Your task to perform on an android device: Show me recent news Image 0: 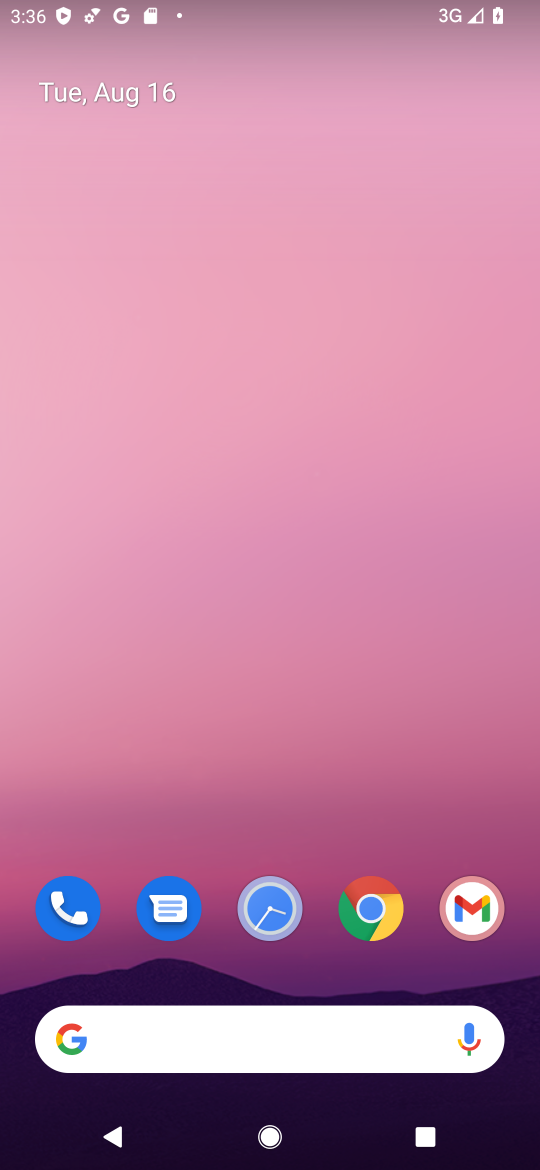
Step 0: drag from (238, 995) to (332, 123)
Your task to perform on an android device: Show me recent news Image 1: 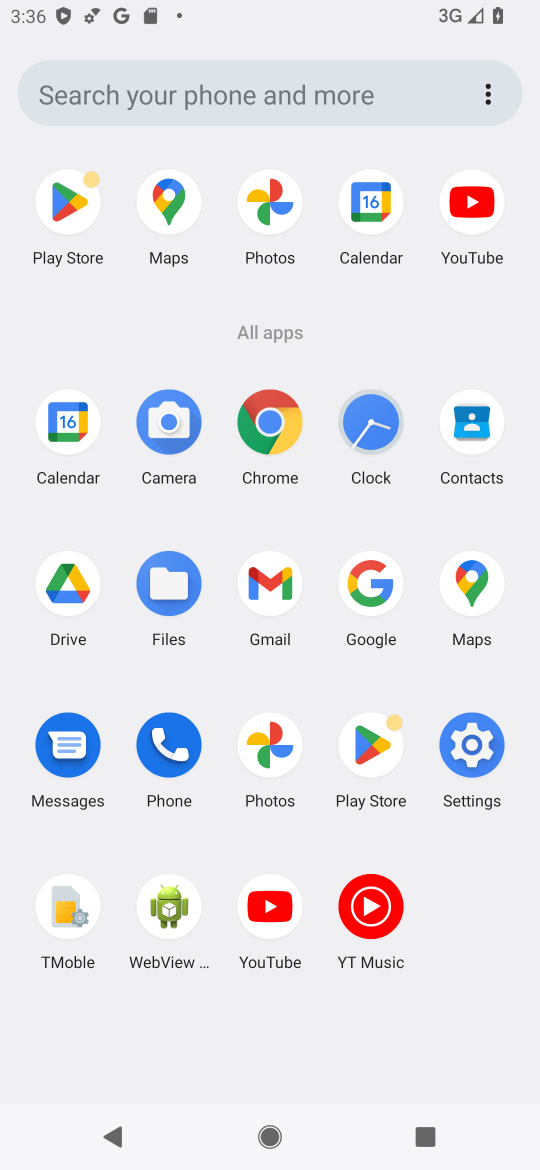
Step 1: click (247, 92)
Your task to perform on an android device: Show me recent news Image 2: 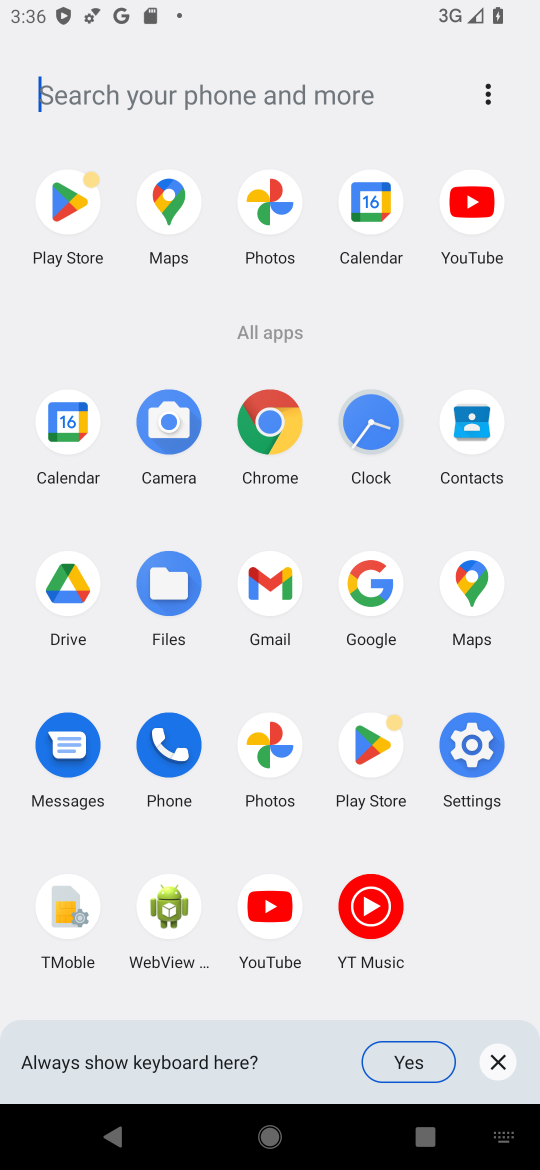
Step 2: click (269, 97)
Your task to perform on an android device: Show me recent news Image 3: 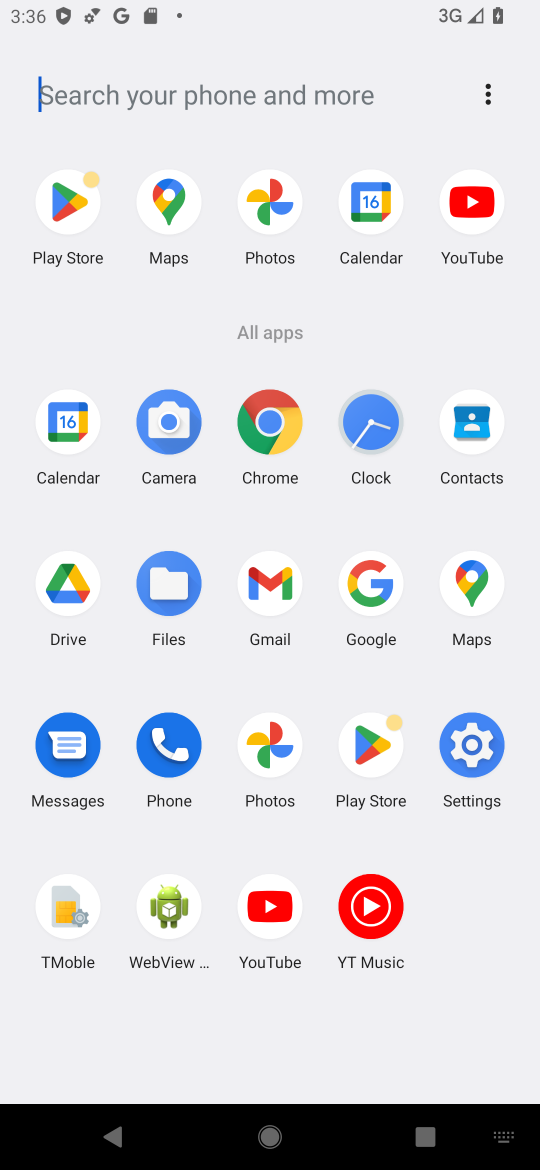
Step 3: click (377, 570)
Your task to perform on an android device: Show me recent news Image 4: 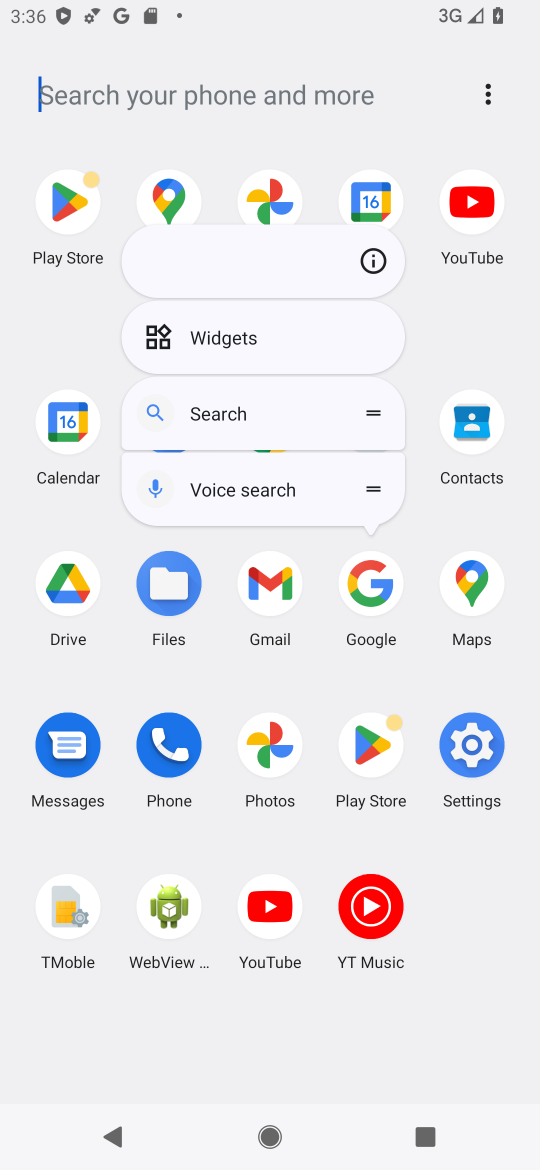
Step 4: click (374, 573)
Your task to perform on an android device: Show me recent news Image 5: 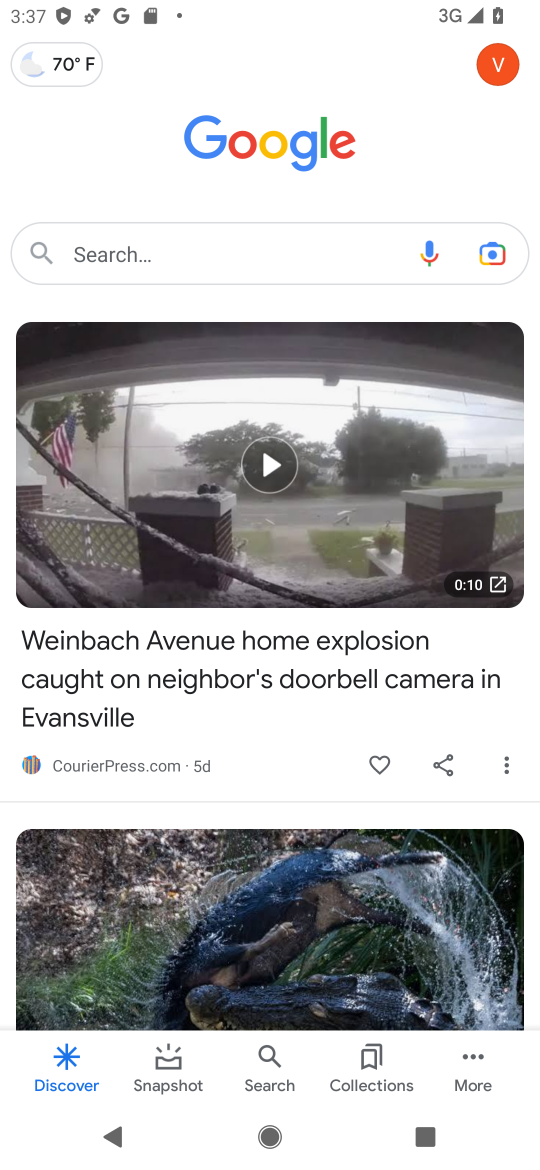
Step 5: click (185, 243)
Your task to perform on an android device: Show me recent news Image 6: 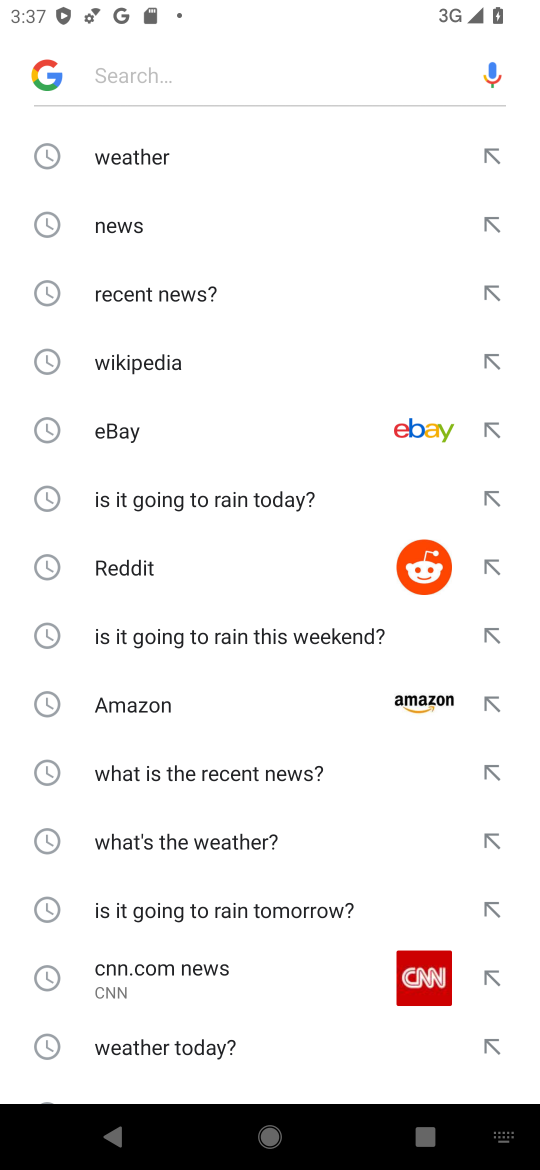
Step 6: click (174, 288)
Your task to perform on an android device: Show me recent news Image 7: 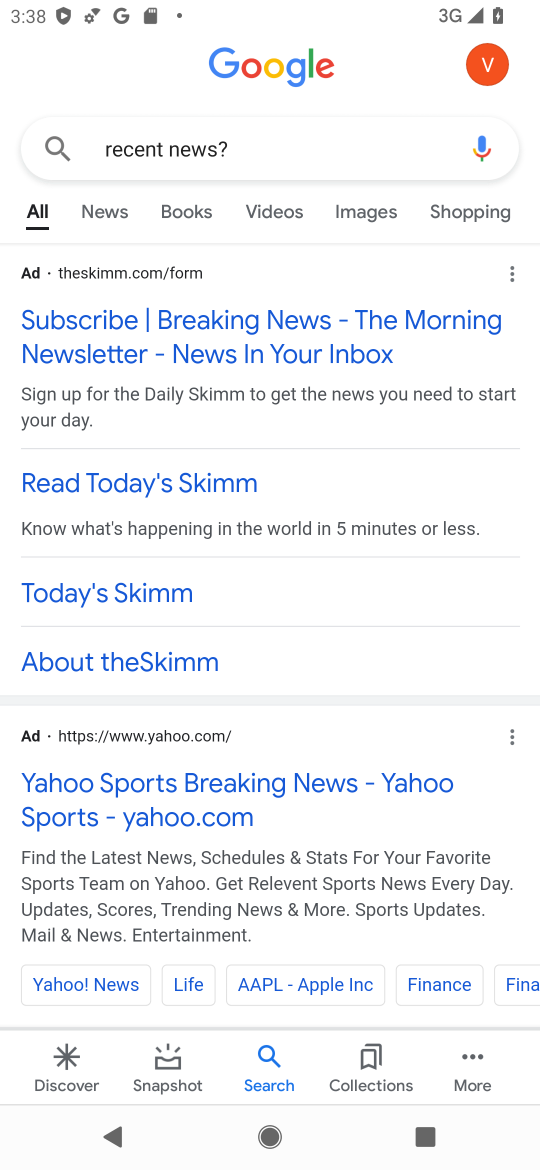
Step 7: task complete